Your task to perform on an android device: Open Android settings Image 0: 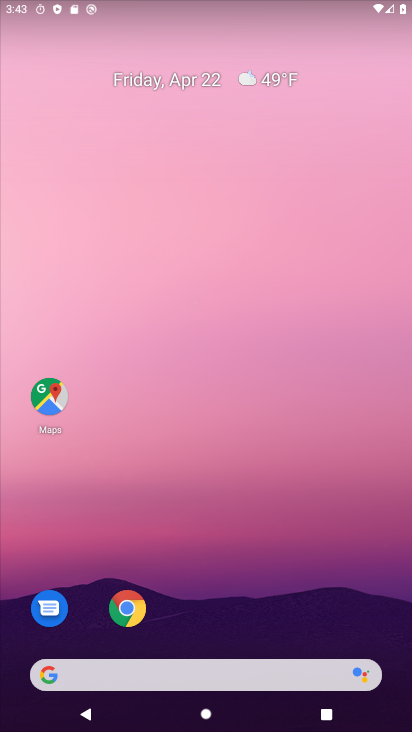
Step 0: drag from (280, 589) to (301, 88)
Your task to perform on an android device: Open Android settings Image 1: 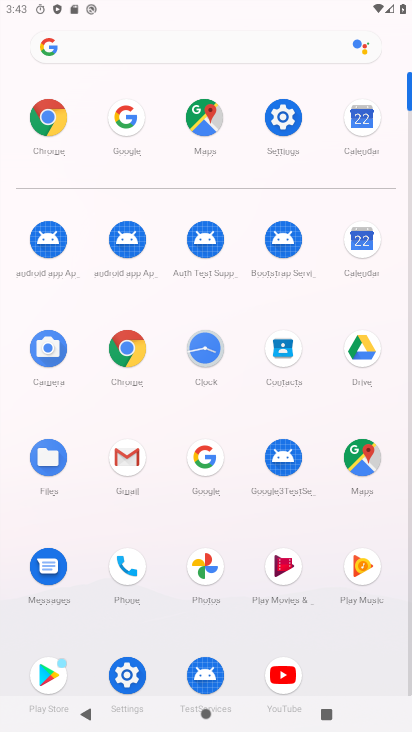
Step 1: click (287, 117)
Your task to perform on an android device: Open Android settings Image 2: 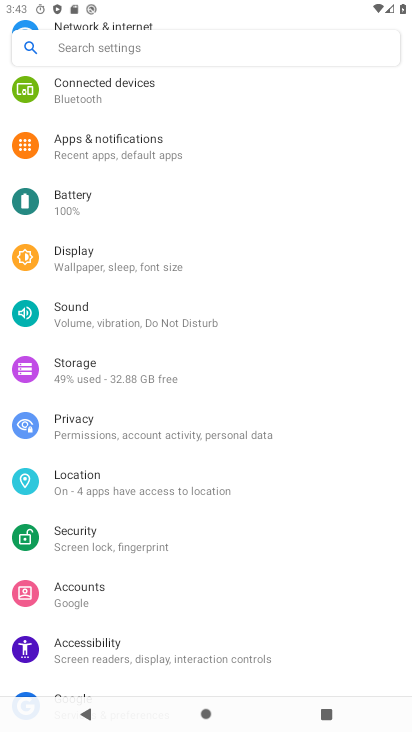
Step 2: drag from (281, 641) to (265, 274)
Your task to perform on an android device: Open Android settings Image 3: 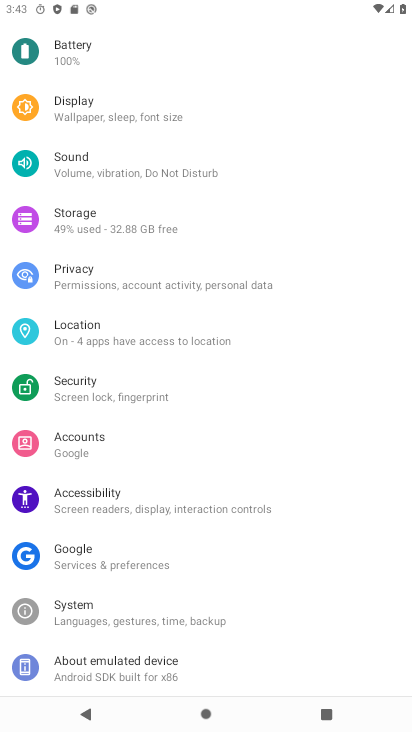
Step 3: click (159, 661)
Your task to perform on an android device: Open Android settings Image 4: 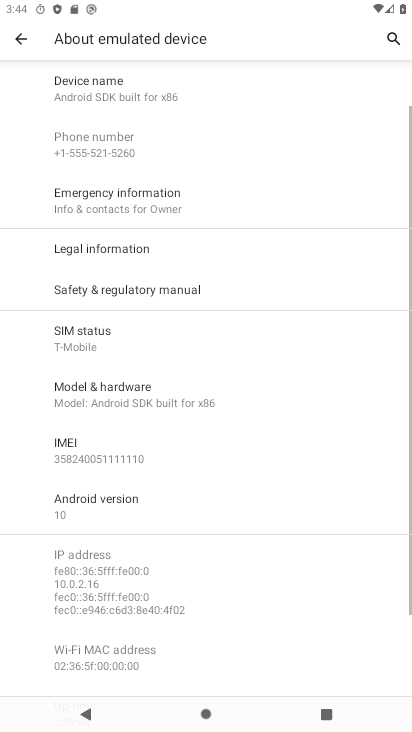
Step 4: click (136, 508)
Your task to perform on an android device: Open Android settings Image 5: 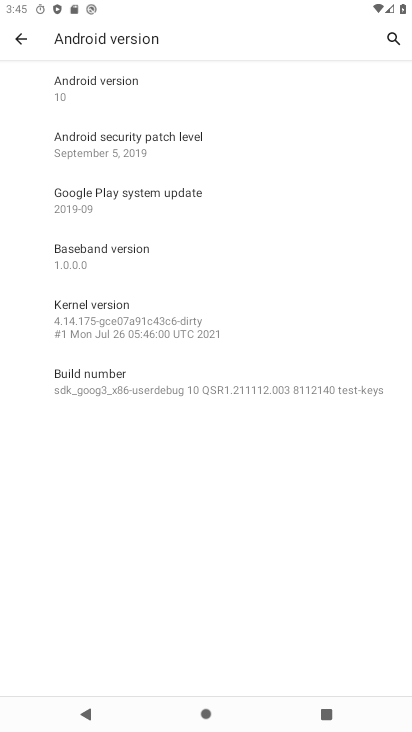
Step 5: task complete